Your task to perform on an android device: Turn off the flashlight Image 0: 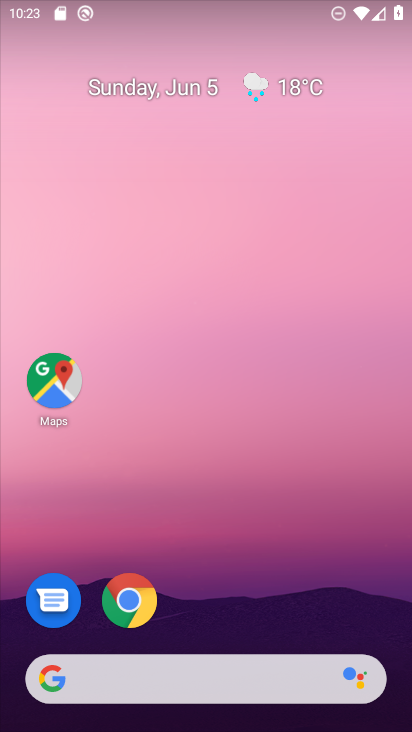
Step 0: drag from (266, 603) to (247, 109)
Your task to perform on an android device: Turn off the flashlight Image 1: 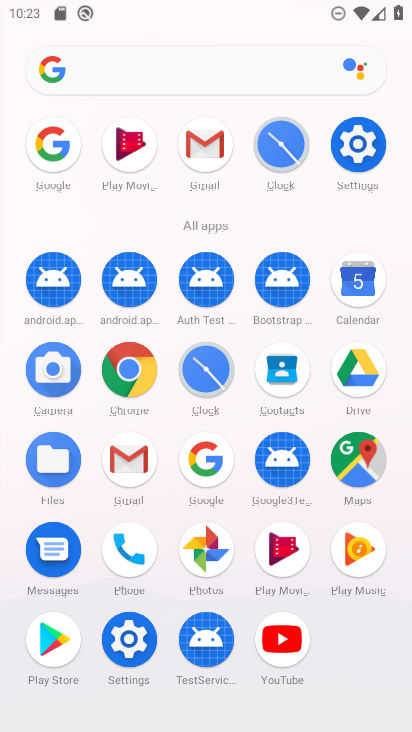
Step 1: click (350, 154)
Your task to perform on an android device: Turn off the flashlight Image 2: 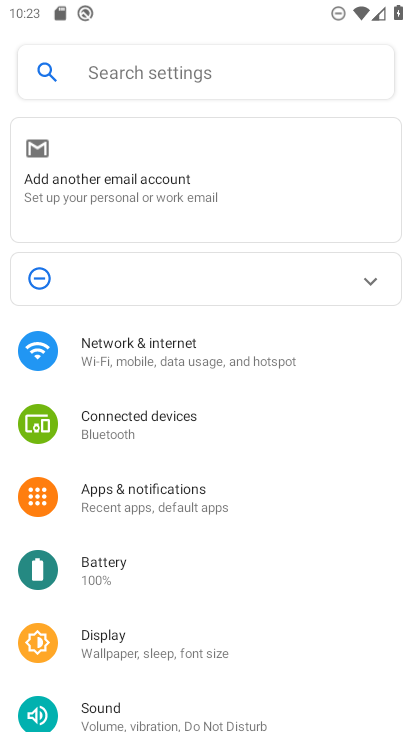
Step 2: click (187, 77)
Your task to perform on an android device: Turn off the flashlight Image 3: 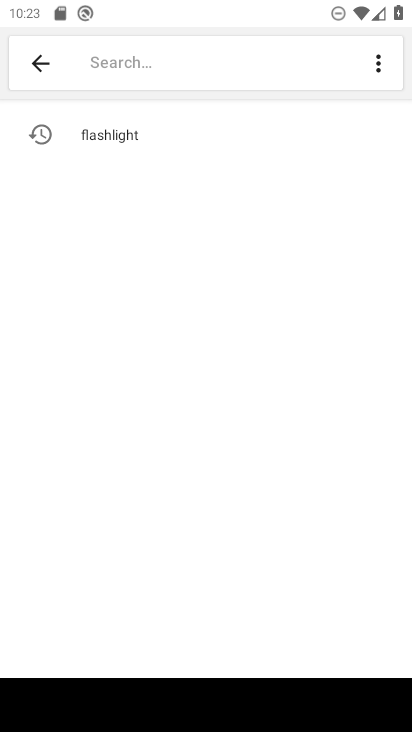
Step 3: type "flashlight"
Your task to perform on an android device: Turn off the flashlight Image 4: 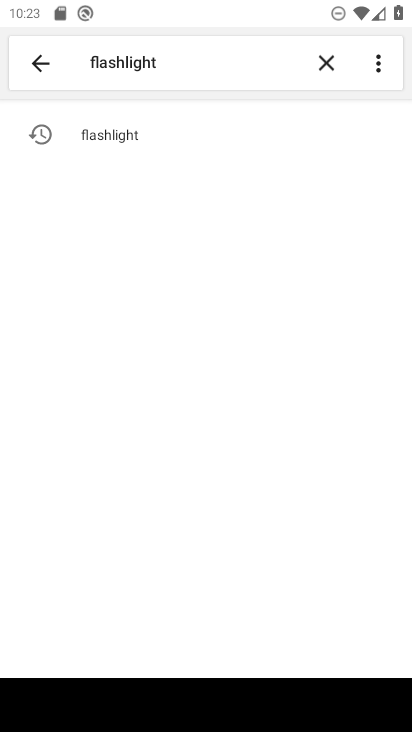
Step 4: click (112, 118)
Your task to perform on an android device: Turn off the flashlight Image 5: 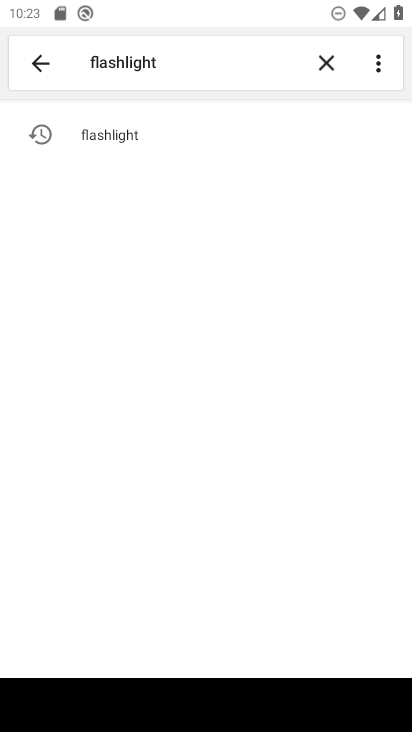
Step 5: task complete